Your task to perform on an android device: check the backup settings in the google photos Image 0: 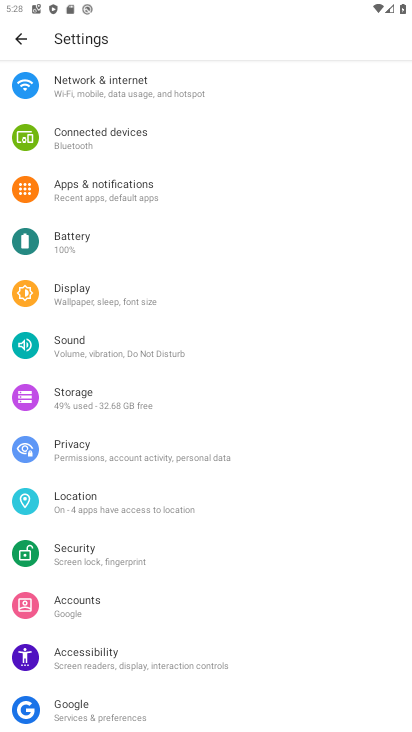
Step 0: press home button
Your task to perform on an android device: check the backup settings in the google photos Image 1: 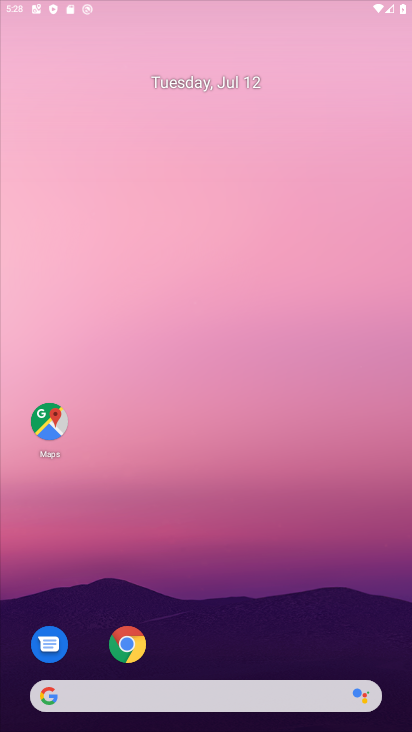
Step 1: drag from (238, 653) to (244, 34)
Your task to perform on an android device: check the backup settings in the google photos Image 2: 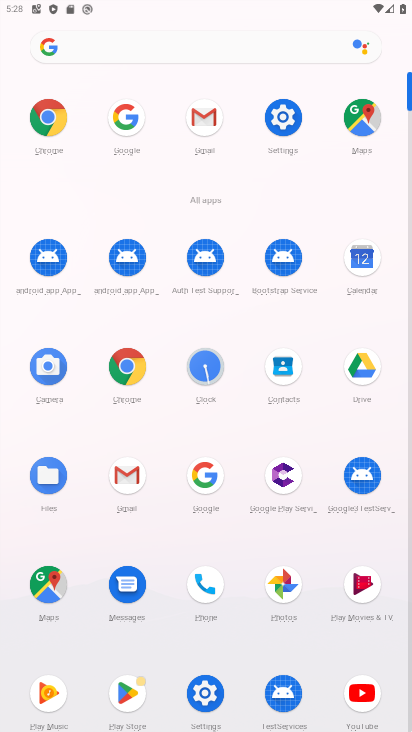
Step 2: click (268, 578)
Your task to perform on an android device: check the backup settings in the google photos Image 3: 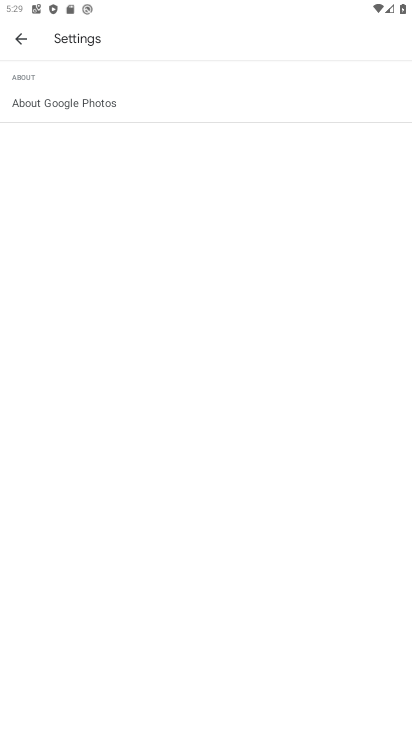
Step 3: click (15, 37)
Your task to perform on an android device: check the backup settings in the google photos Image 4: 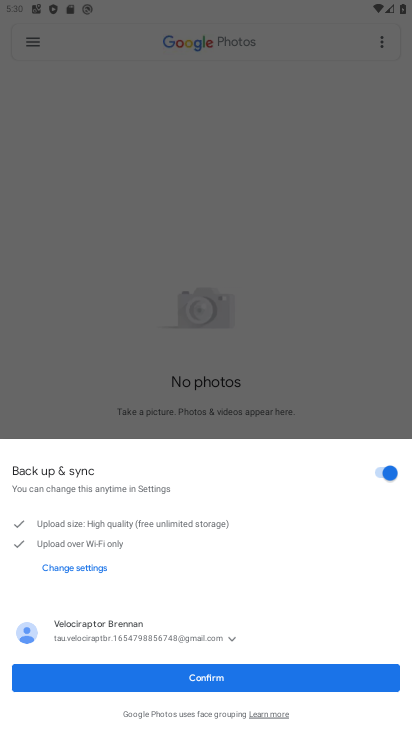
Step 4: press home button
Your task to perform on an android device: check the backup settings in the google photos Image 5: 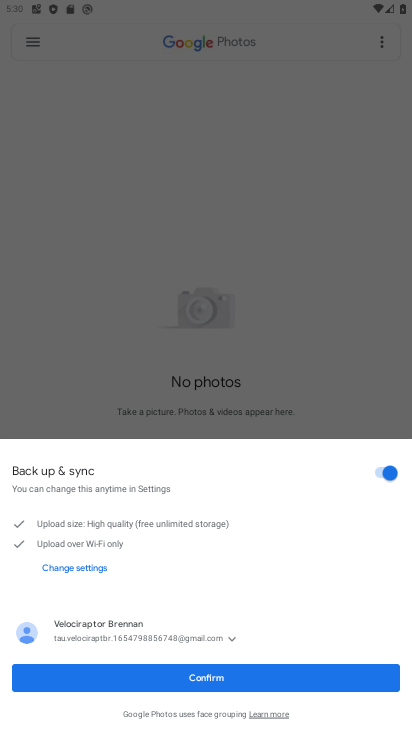
Step 5: press home button
Your task to perform on an android device: check the backup settings in the google photos Image 6: 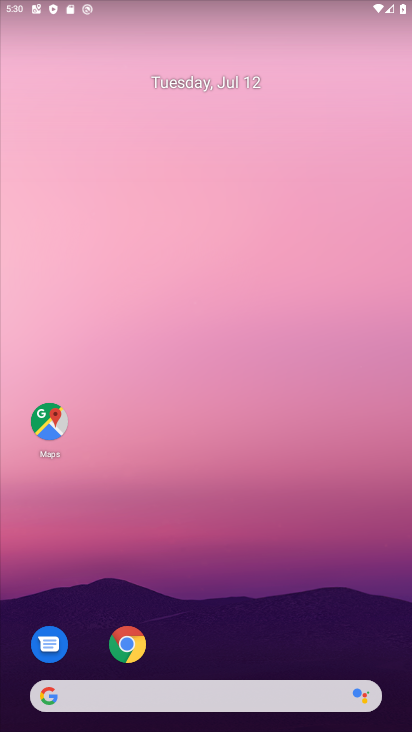
Step 6: drag from (229, 577) to (198, 139)
Your task to perform on an android device: check the backup settings in the google photos Image 7: 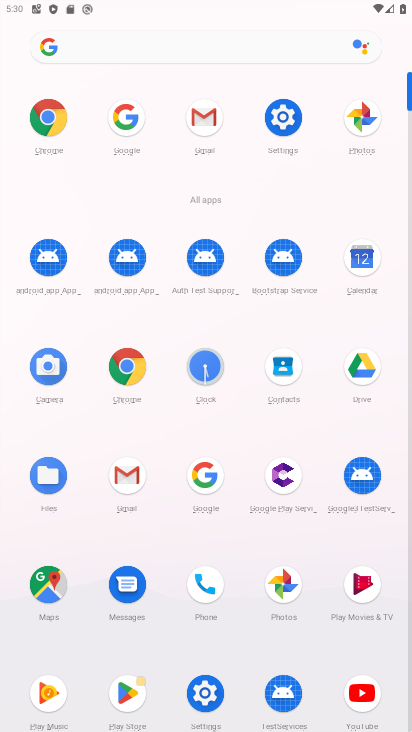
Step 7: click (282, 578)
Your task to perform on an android device: check the backup settings in the google photos Image 8: 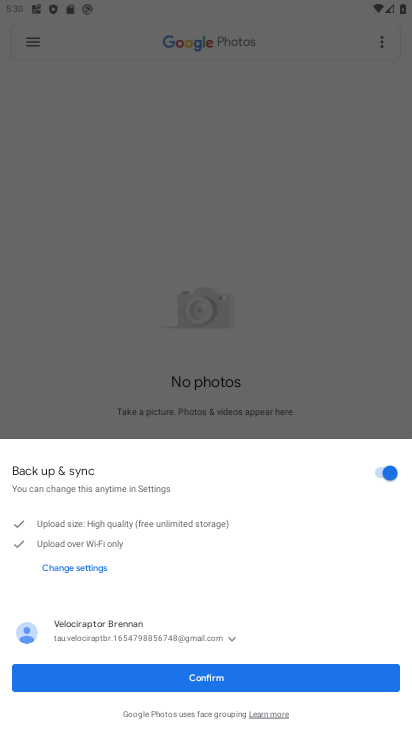
Step 8: click (40, 123)
Your task to perform on an android device: check the backup settings in the google photos Image 9: 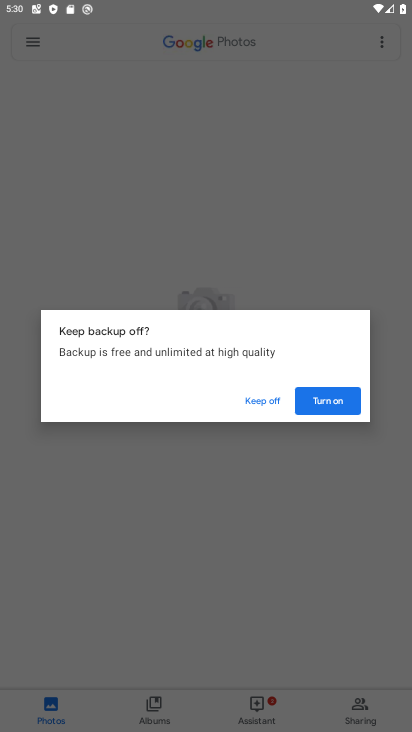
Step 9: click (318, 406)
Your task to perform on an android device: check the backup settings in the google photos Image 10: 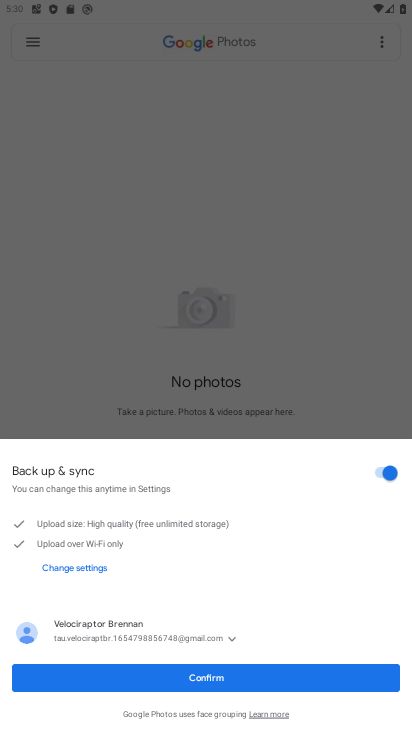
Step 10: click (232, 672)
Your task to perform on an android device: check the backup settings in the google photos Image 11: 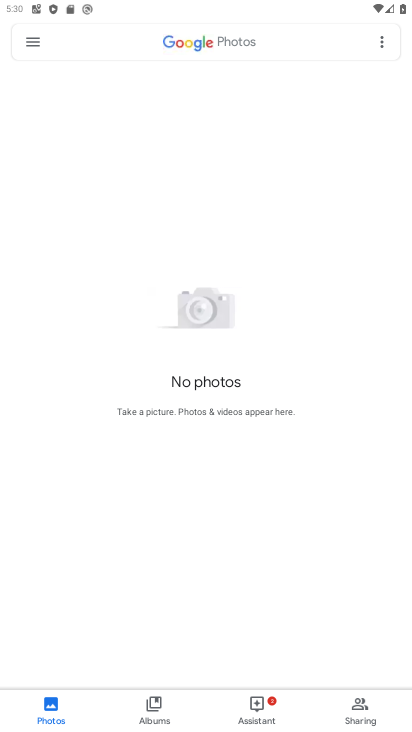
Step 11: click (33, 33)
Your task to perform on an android device: check the backup settings in the google photos Image 12: 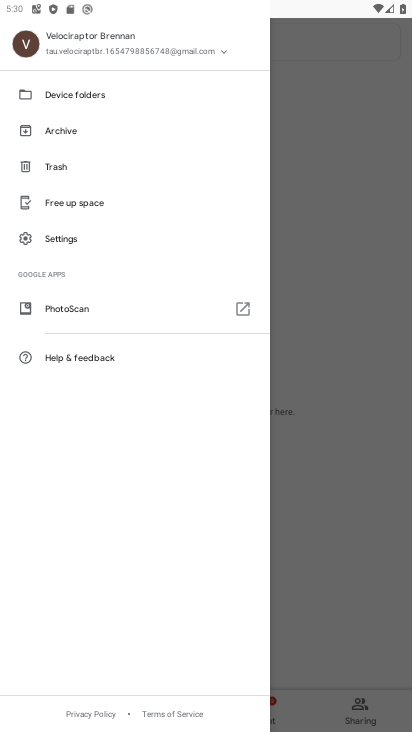
Step 12: click (36, 237)
Your task to perform on an android device: check the backup settings in the google photos Image 13: 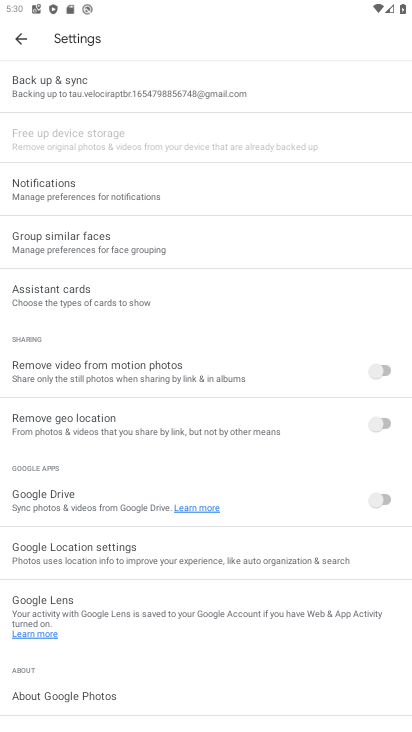
Step 13: click (93, 91)
Your task to perform on an android device: check the backup settings in the google photos Image 14: 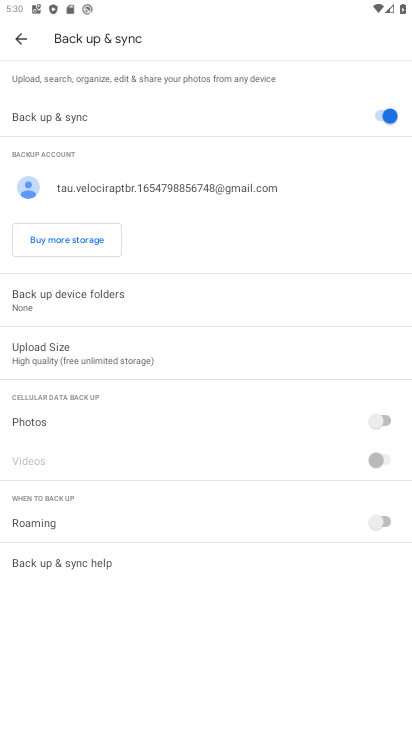
Step 14: task complete